Your task to perform on an android device: change notification settings in the gmail app Image 0: 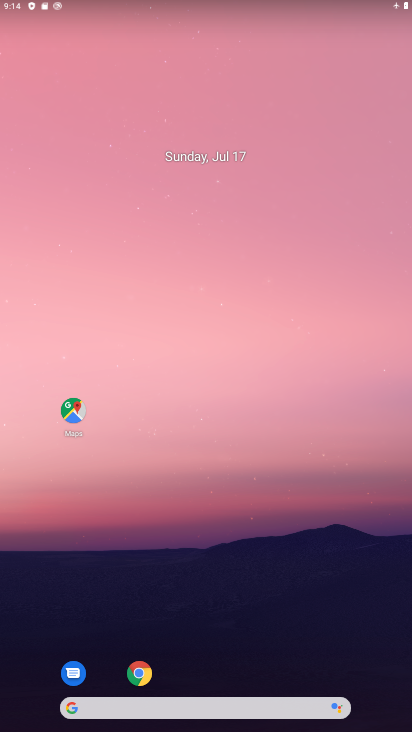
Step 0: drag from (377, 676) to (318, 214)
Your task to perform on an android device: change notification settings in the gmail app Image 1: 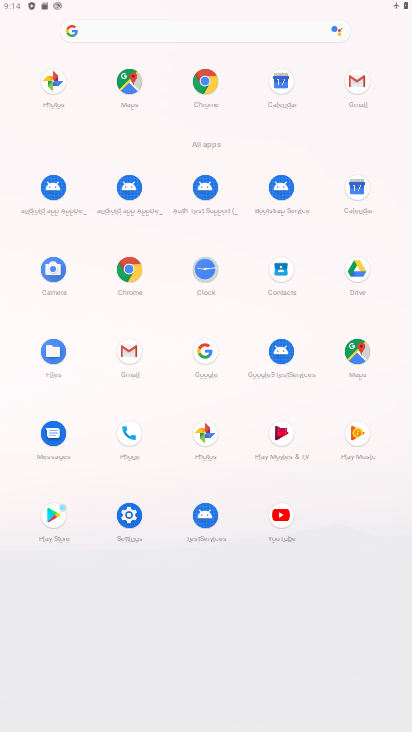
Step 1: click (130, 351)
Your task to perform on an android device: change notification settings in the gmail app Image 2: 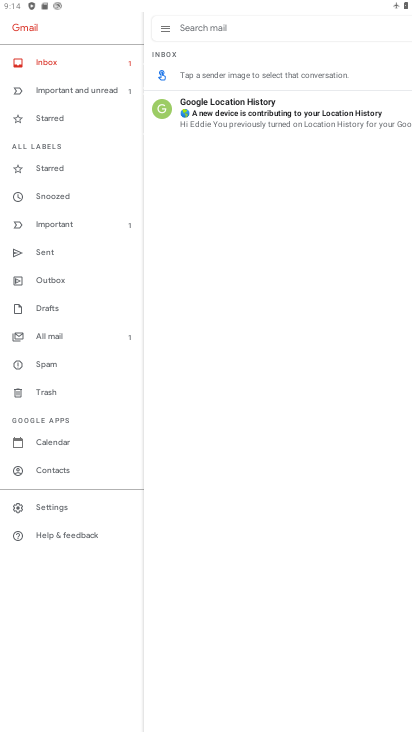
Step 2: click (54, 501)
Your task to perform on an android device: change notification settings in the gmail app Image 3: 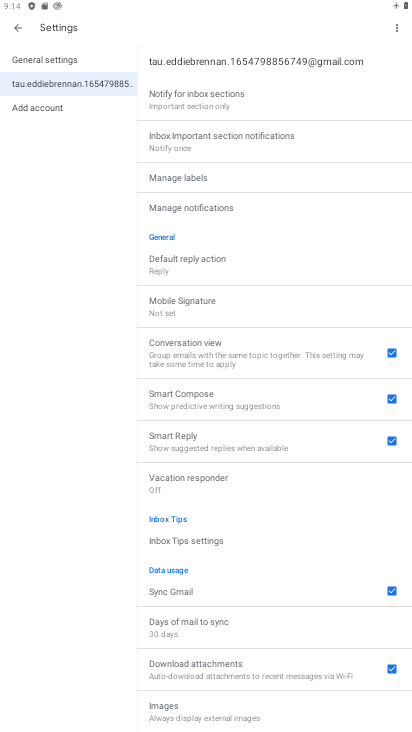
Step 3: click (192, 201)
Your task to perform on an android device: change notification settings in the gmail app Image 4: 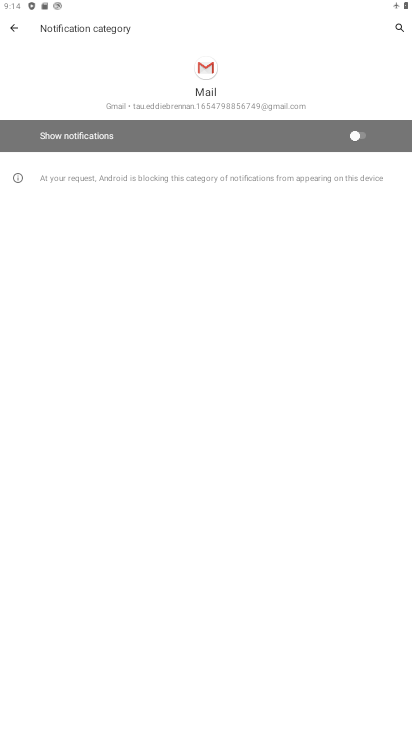
Step 4: click (362, 134)
Your task to perform on an android device: change notification settings in the gmail app Image 5: 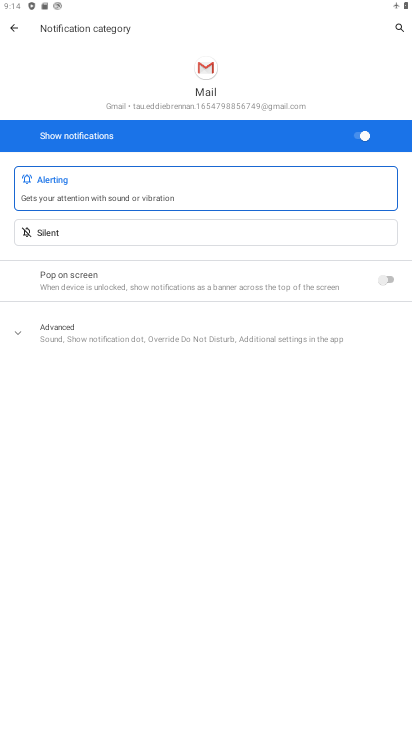
Step 5: task complete